Your task to perform on an android device: Go to display settings Image 0: 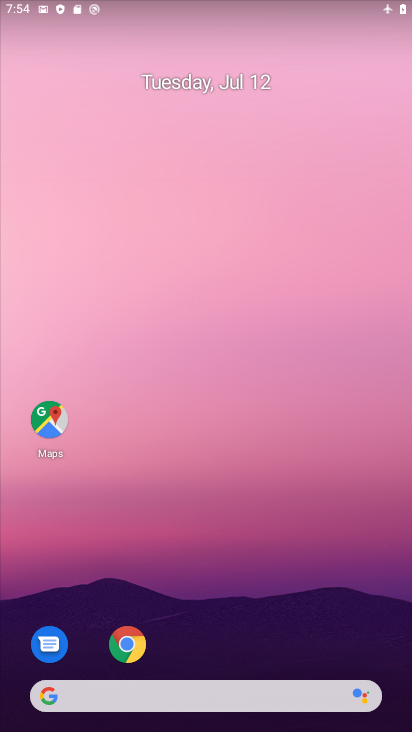
Step 0: drag from (216, 641) to (278, 182)
Your task to perform on an android device: Go to display settings Image 1: 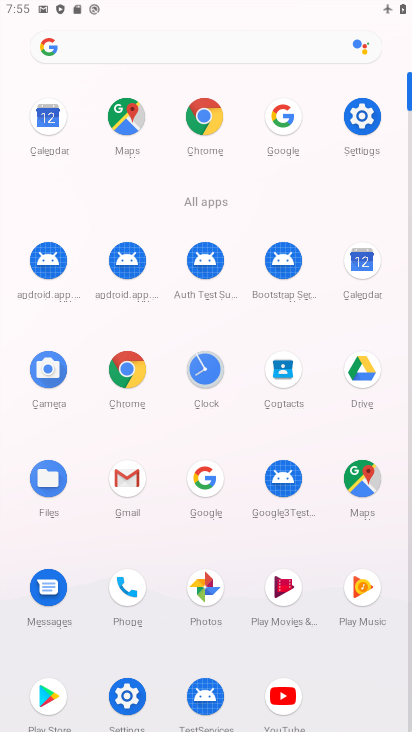
Step 1: click (356, 109)
Your task to perform on an android device: Go to display settings Image 2: 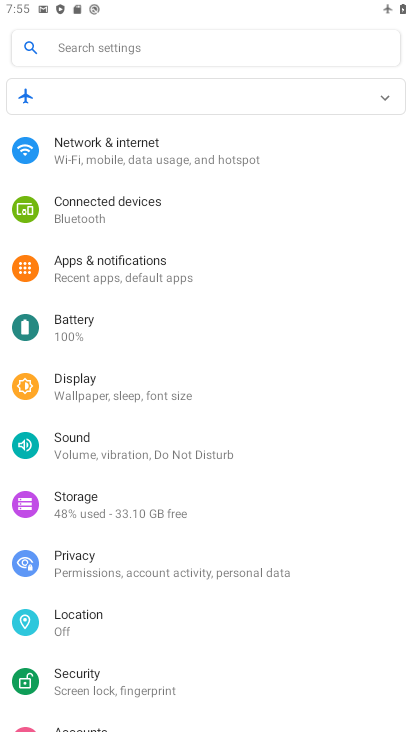
Step 2: click (117, 390)
Your task to perform on an android device: Go to display settings Image 3: 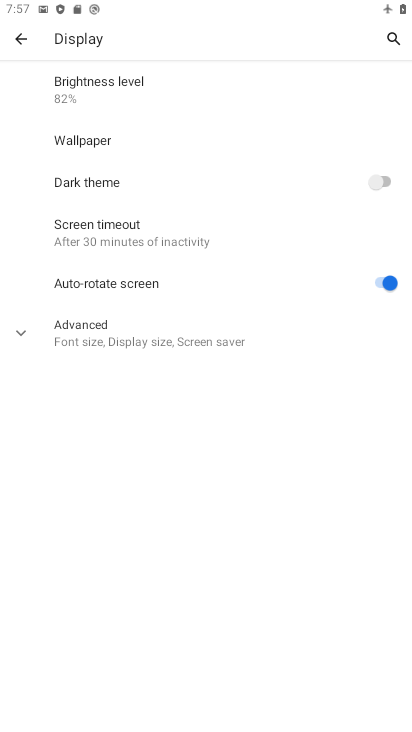
Step 3: task complete